Your task to perform on an android device: Open the web browser Image 0: 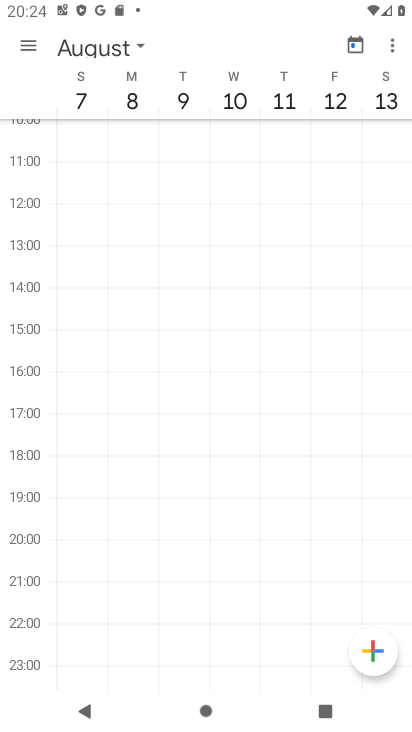
Step 0: press home button
Your task to perform on an android device: Open the web browser Image 1: 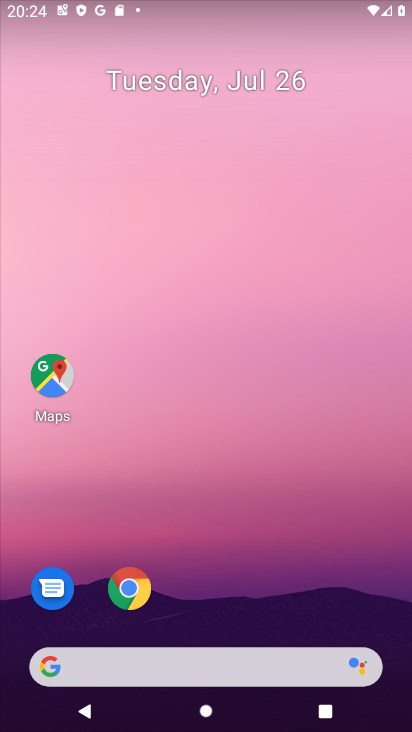
Step 1: click (52, 663)
Your task to perform on an android device: Open the web browser Image 2: 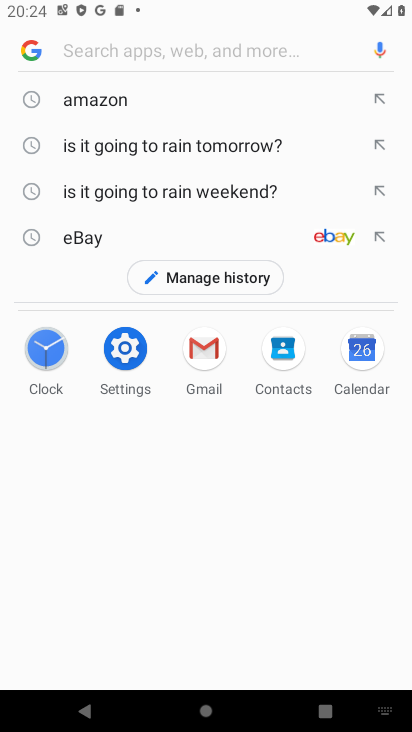
Step 2: click (32, 57)
Your task to perform on an android device: Open the web browser Image 3: 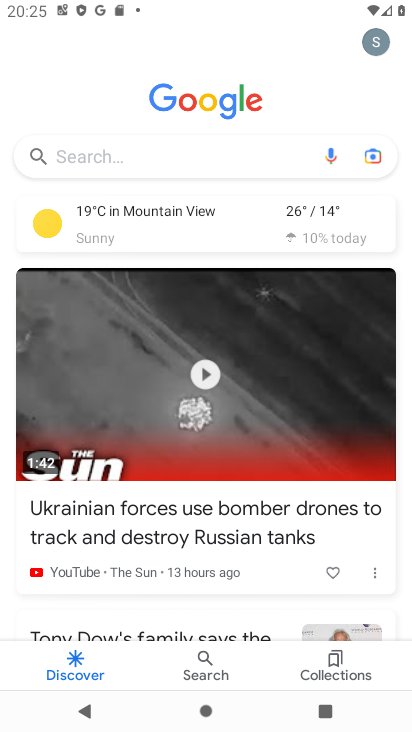
Step 3: task complete